Your task to perform on an android device: turn off wifi Image 0: 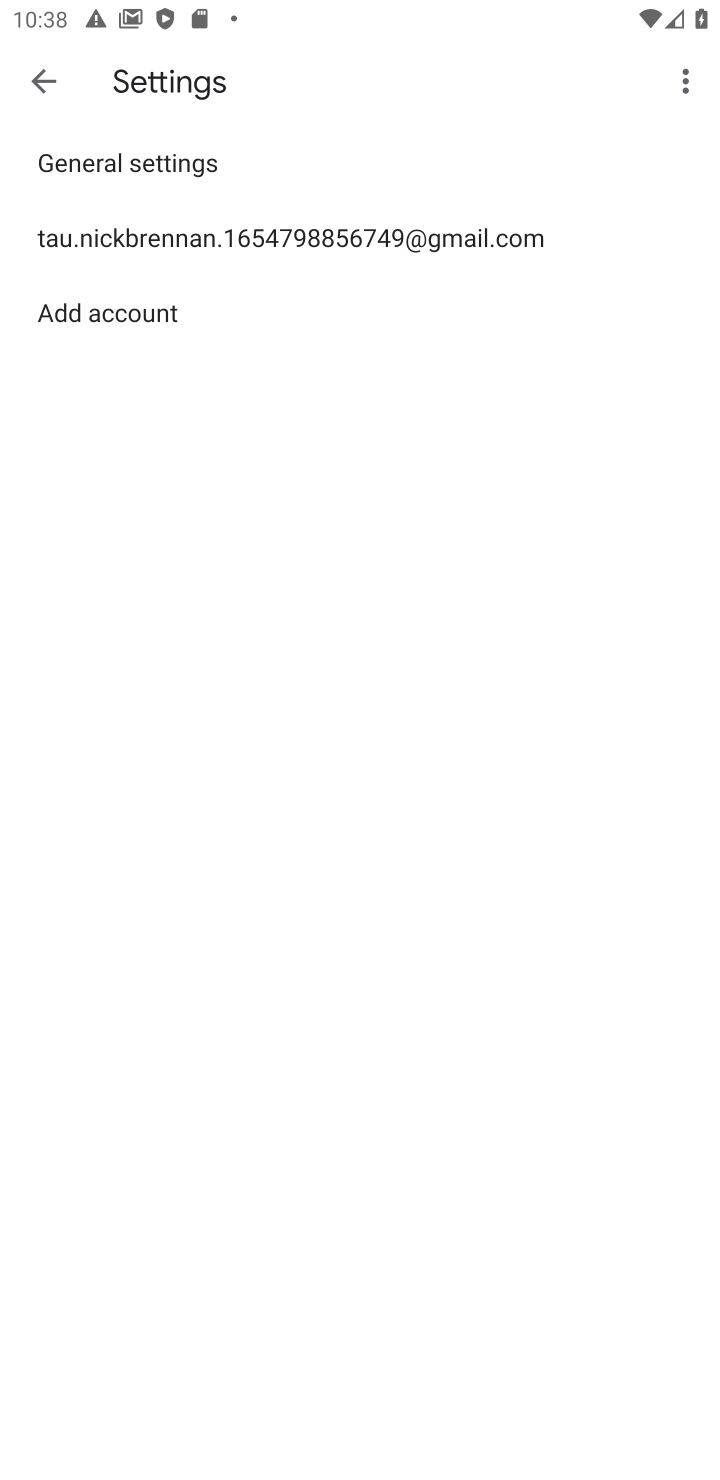
Step 0: press home button
Your task to perform on an android device: turn off wifi Image 1: 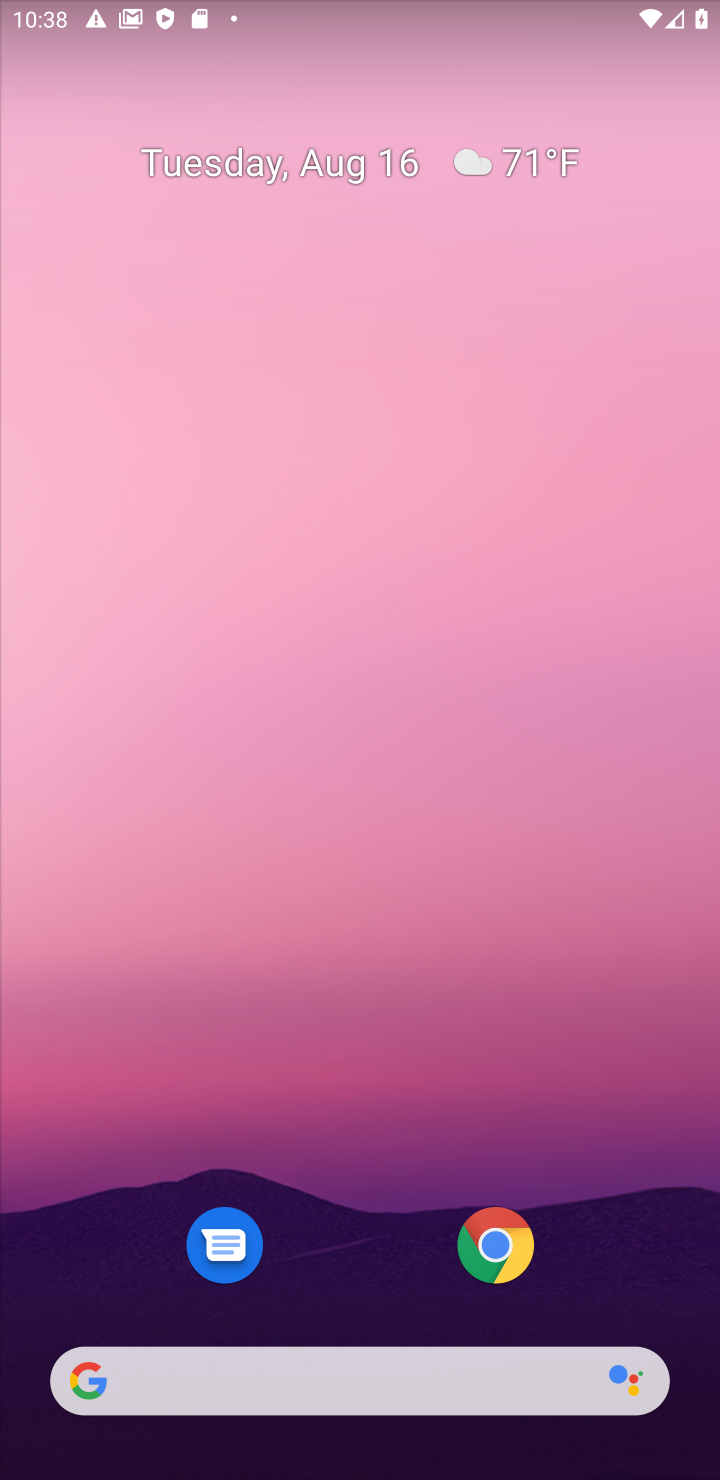
Step 1: drag from (609, 27) to (487, 1357)
Your task to perform on an android device: turn off wifi Image 2: 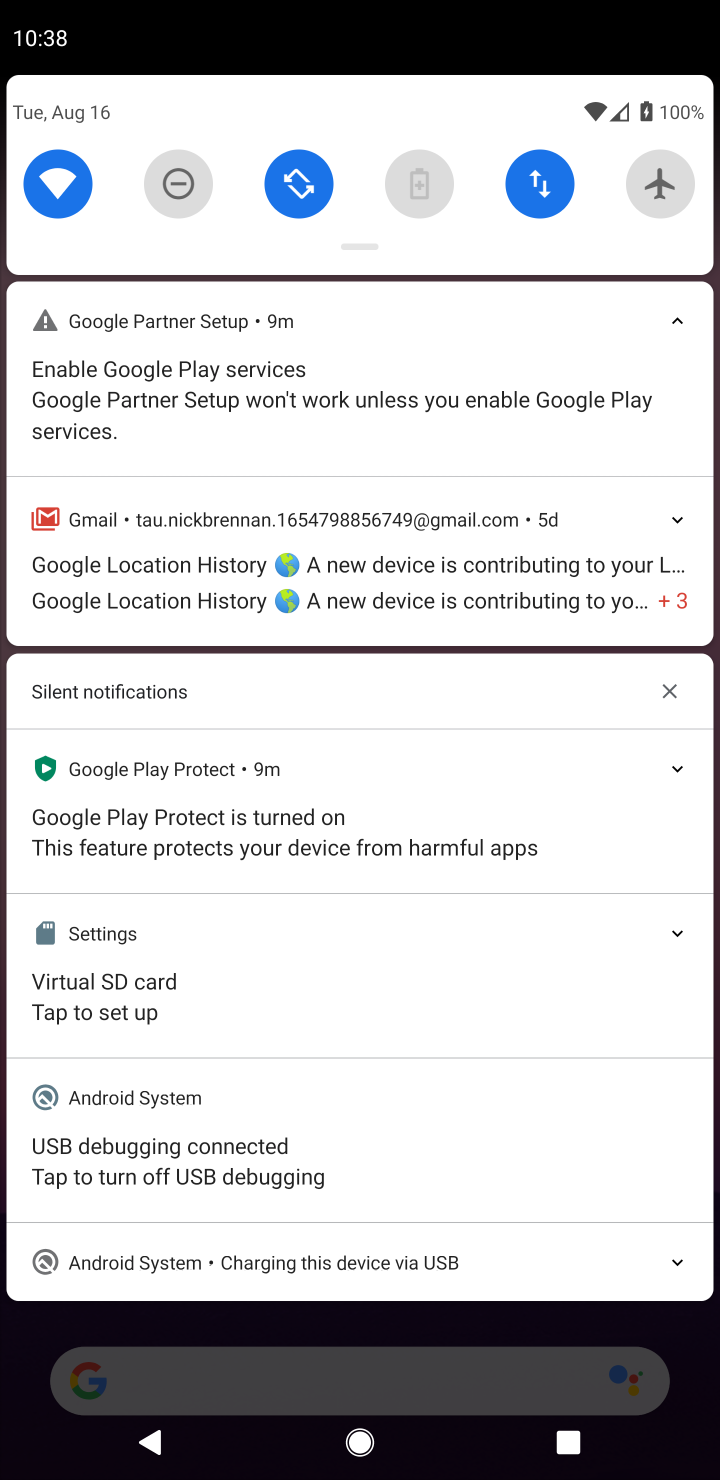
Step 2: click (46, 170)
Your task to perform on an android device: turn off wifi Image 3: 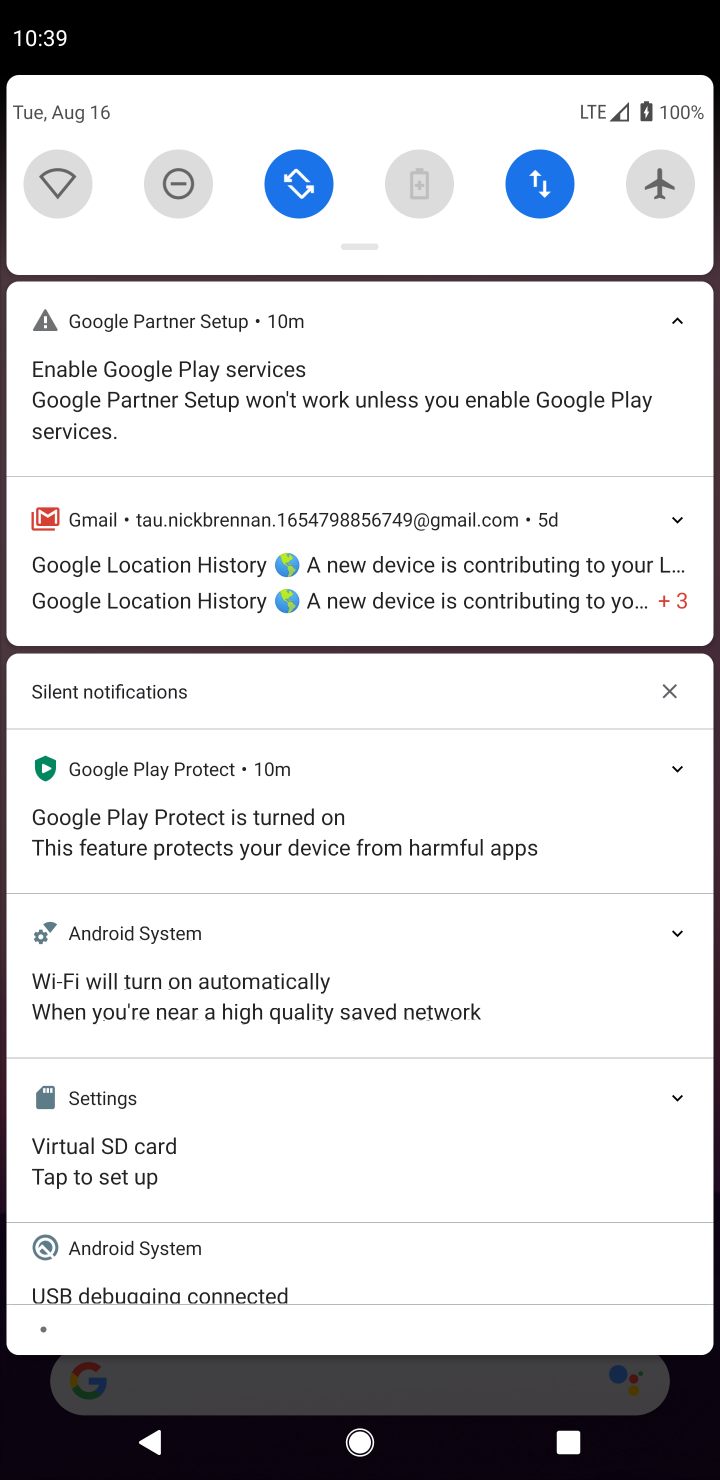
Step 3: task complete